Your task to perform on an android device: refresh tabs in the chrome app Image 0: 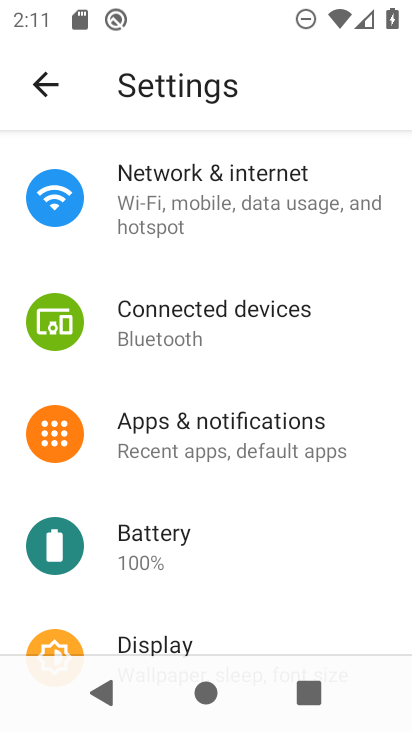
Step 0: press home button
Your task to perform on an android device: refresh tabs in the chrome app Image 1: 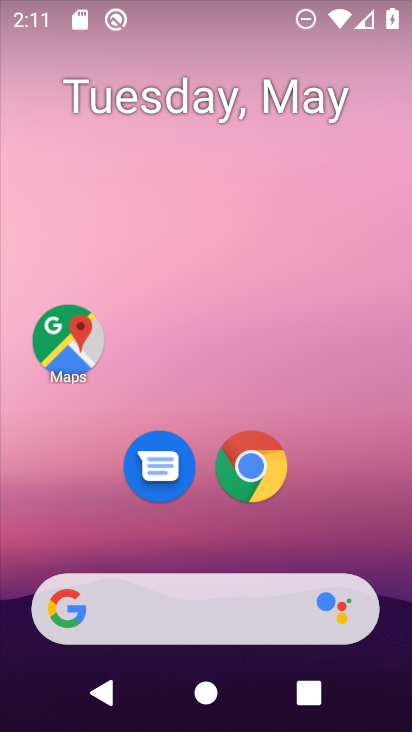
Step 1: click (260, 465)
Your task to perform on an android device: refresh tabs in the chrome app Image 2: 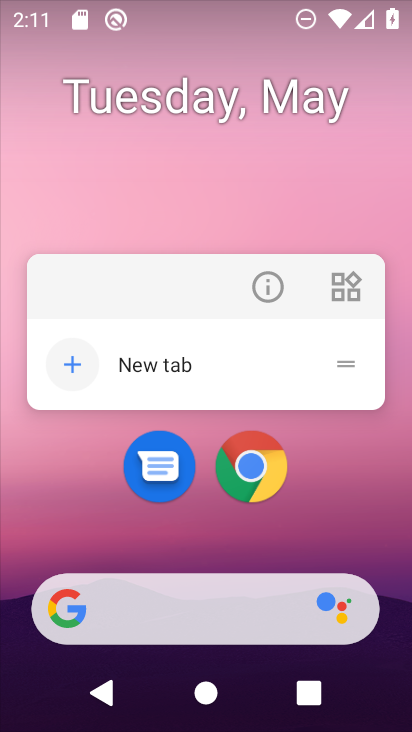
Step 2: click (262, 462)
Your task to perform on an android device: refresh tabs in the chrome app Image 3: 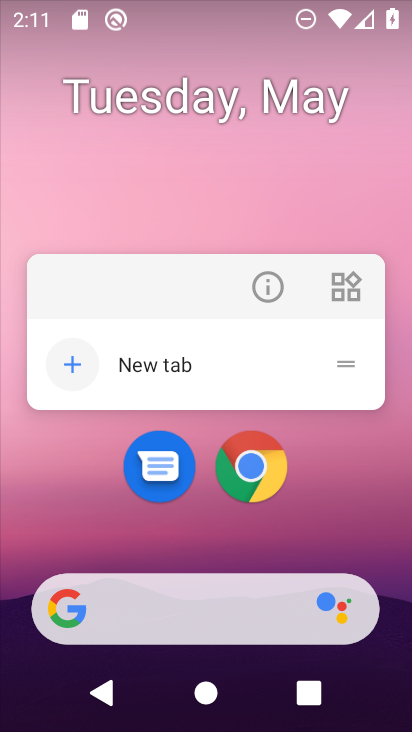
Step 3: click (264, 463)
Your task to perform on an android device: refresh tabs in the chrome app Image 4: 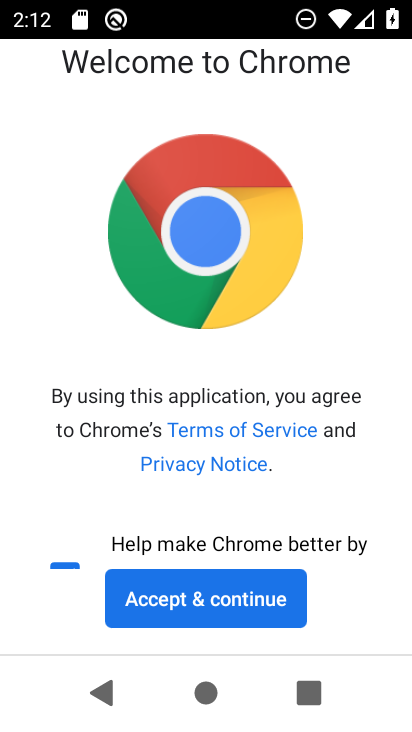
Step 4: click (203, 596)
Your task to perform on an android device: refresh tabs in the chrome app Image 5: 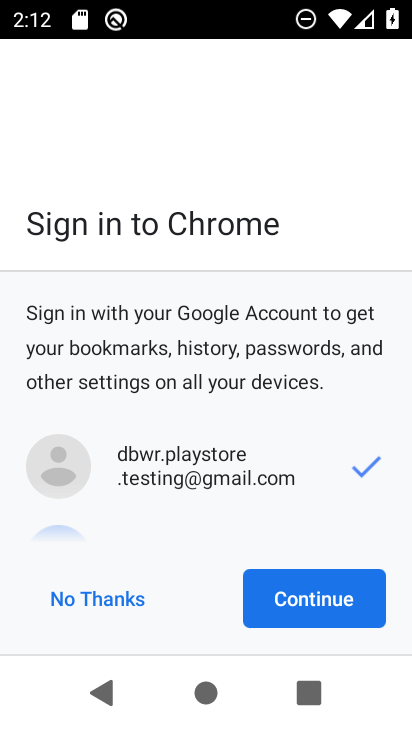
Step 5: click (345, 603)
Your task to perform on an android device: refresh tabs in the chrome app Image 6: 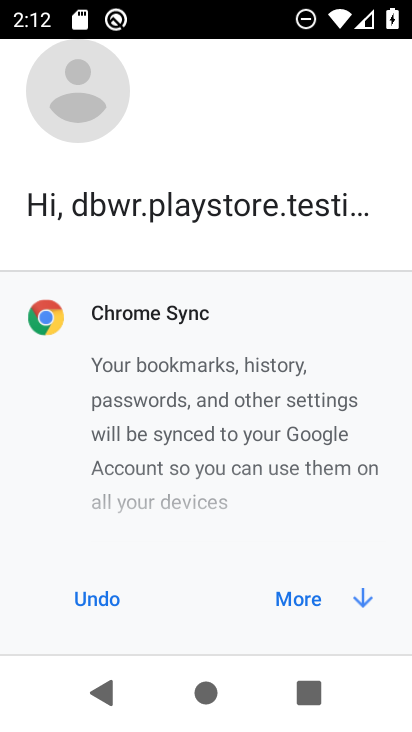
Step 6: click (345, 603)
Your task to perform on an android device: refresh tabs in the chrome app Image 7: 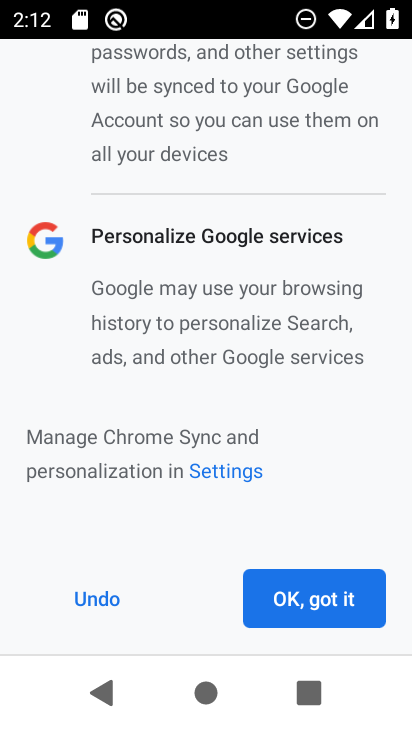
Step 7: click (345, 603)
Your task to perform on an android device: refresh tabs in the chrome app Image 8: 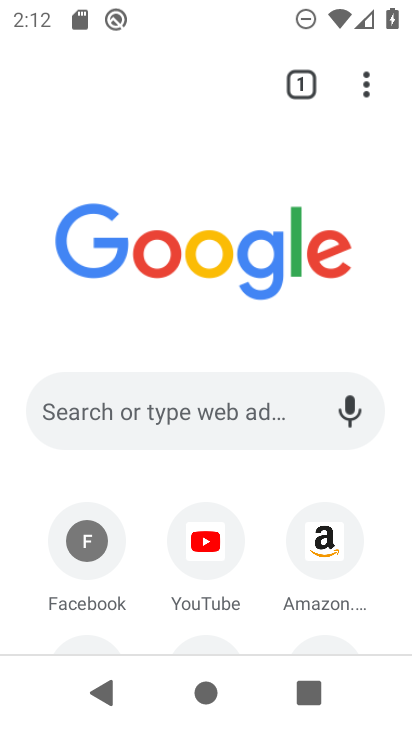
Step 8: click (354, 94)
Your task to perform on an android device: refresh tabs in the chrome app Image 9: 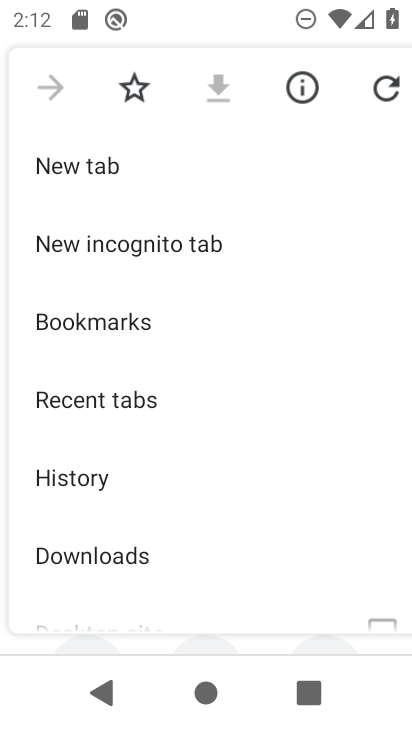
Step 9: click (370, 93)
Your task to perform on an android device: refresh tabs in the chrome app Image 10: 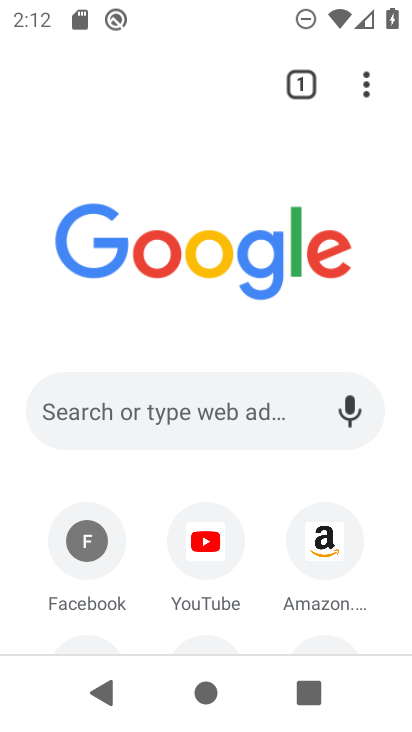
Step 10: task complete